Your task to perform on an android device: turn off picture-in-picture Image 0: 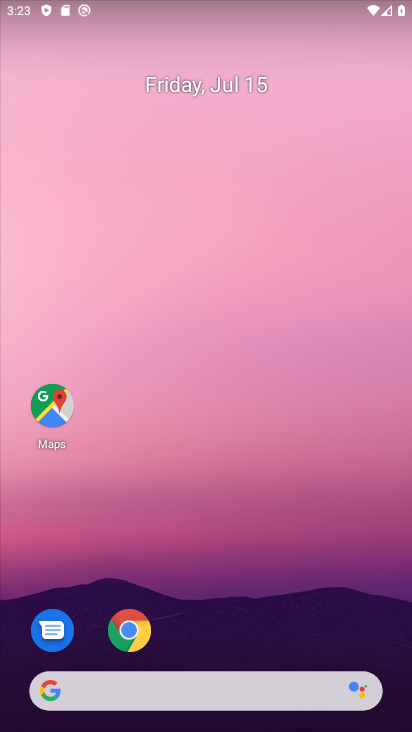
Step 0: drag from (223, 668) to (207, 62)
Your task to perform on an android device: turn off picture-in-picture Image 1: 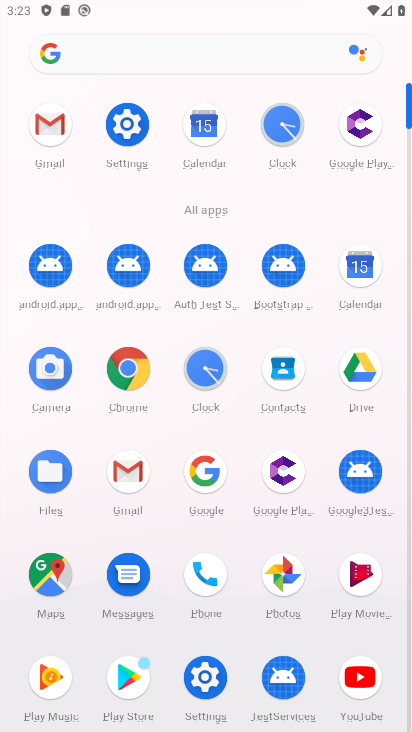
Step 1: click (199, 665)
Your task to perform on an android device: turn off picture-in-picture Image 2: 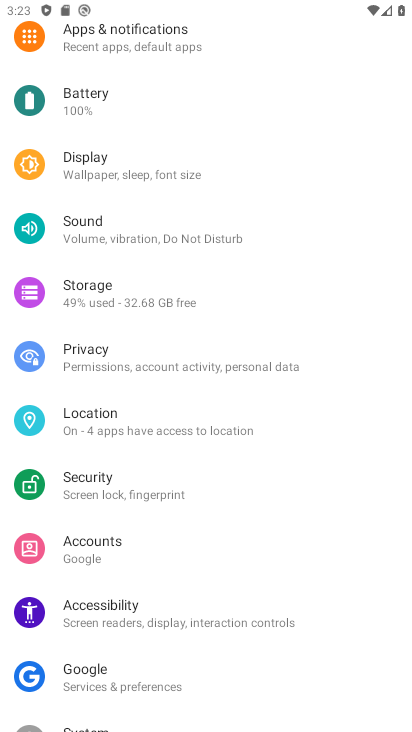
Step 2: click (108, 46)
Your task to perform on an android device: turn off picture-in-picture Image 3: 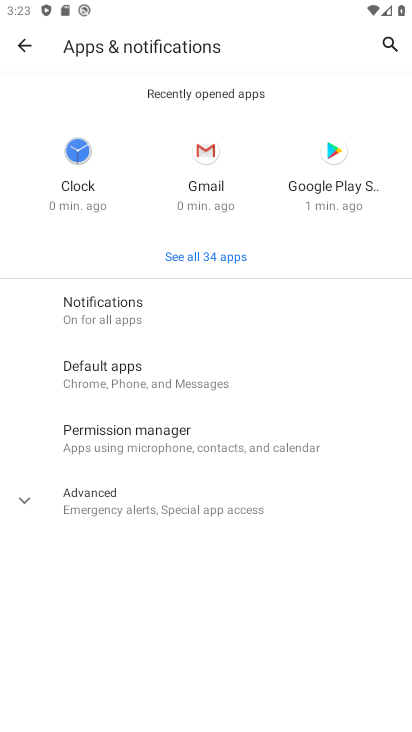
Step 3: click (142, 503)
Your task to perform on an android device: turn off picture-in-picture Image 4: 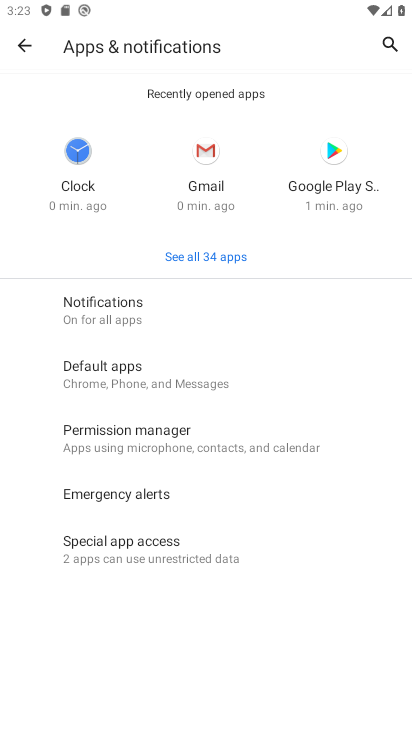
Step 4: click (115, 543)
Your task to perform on an android device: turn off picture-in-picture Image 5: 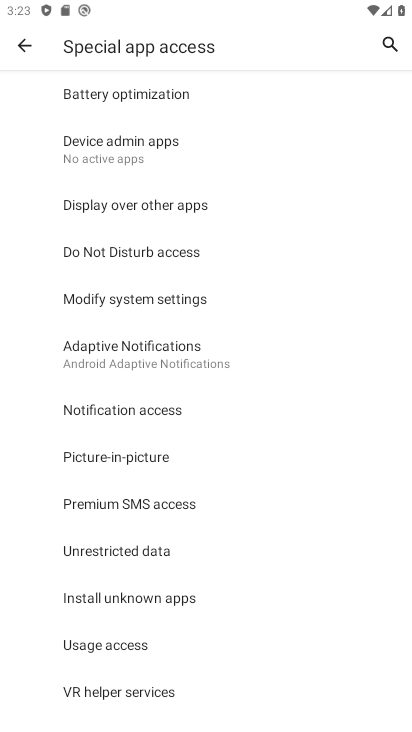
Step 5: click (129, 461)
Your task to perform on an android device: turn off picture-in-picture Image 6: 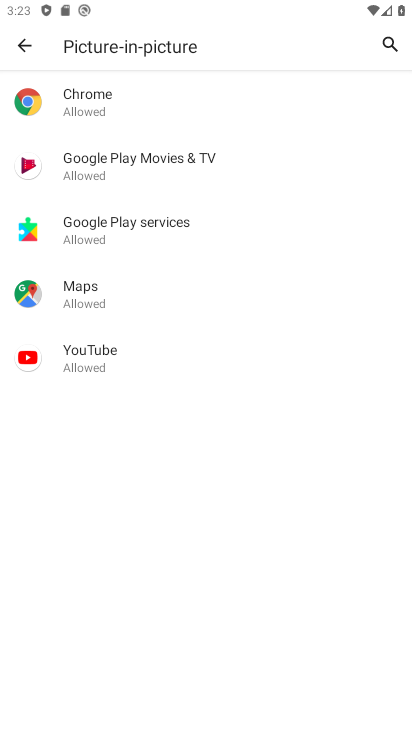
Step 6: task complete